Your task to perform on an android device: Go to notification settings Image 0: 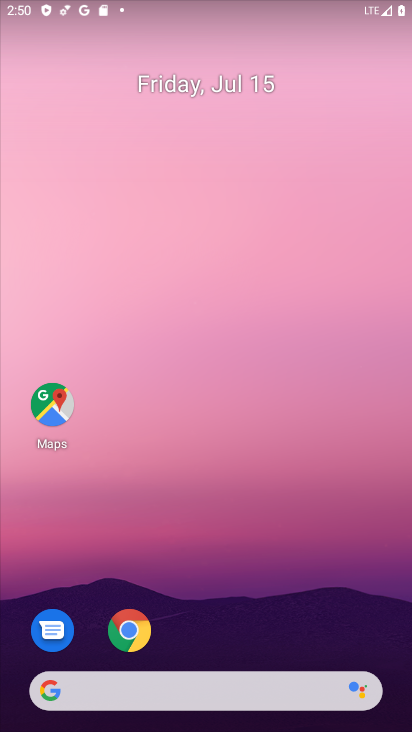
Step 0: drag from (218, 104) to (229, 11)
Your task to perform on an android device: Go to notification settings Image 1: 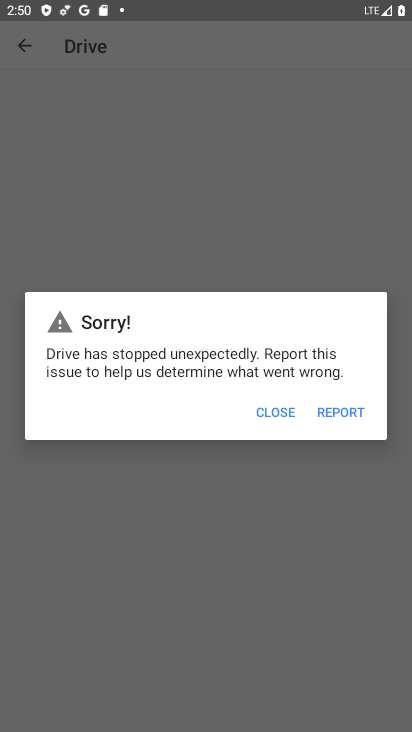
Step 1: press home button
Your task to perform on an android device: Go to notification settings Image 2: 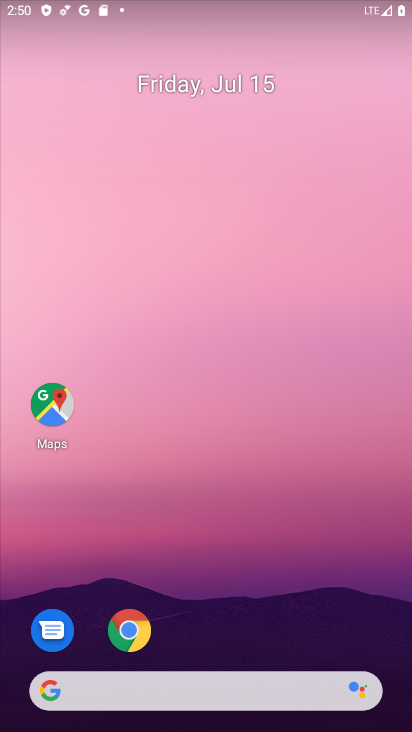
Step 2: drag from (192, 668) to (145, 84)
Your task to perform on an android device: Go to notification settings Image 3: 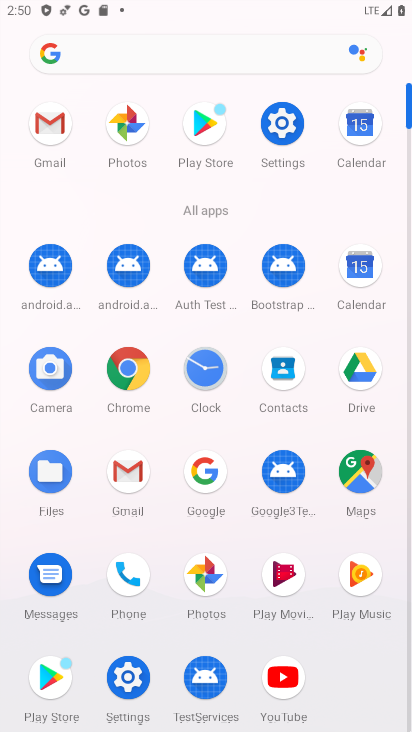
Step 3: click (292, 138)
Your task to perform on an android device: Go to notification settings Image 4: 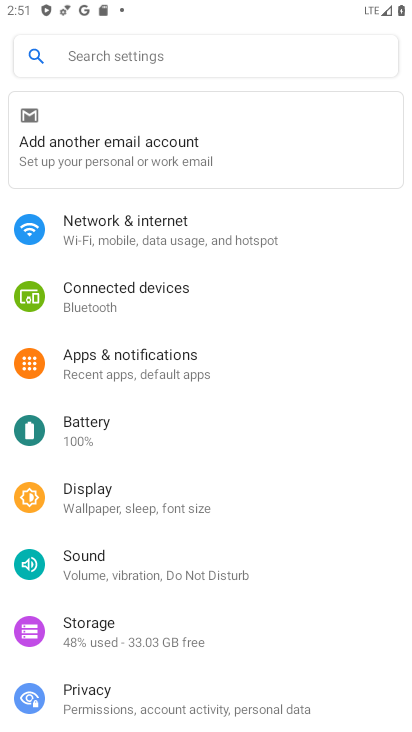
Step 4: click (134, 356)
Your task to perform on an android device: Go to notification settings Image 5: 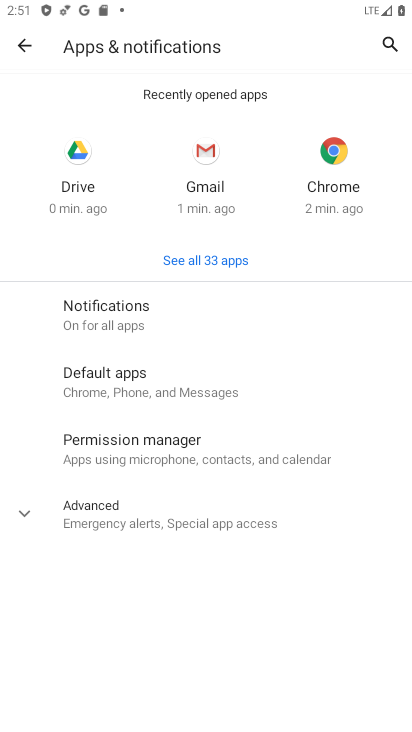
Step 5: task complete